Your task to perform on an android device: Play the new Katy Perry video on YouTube Image 0: 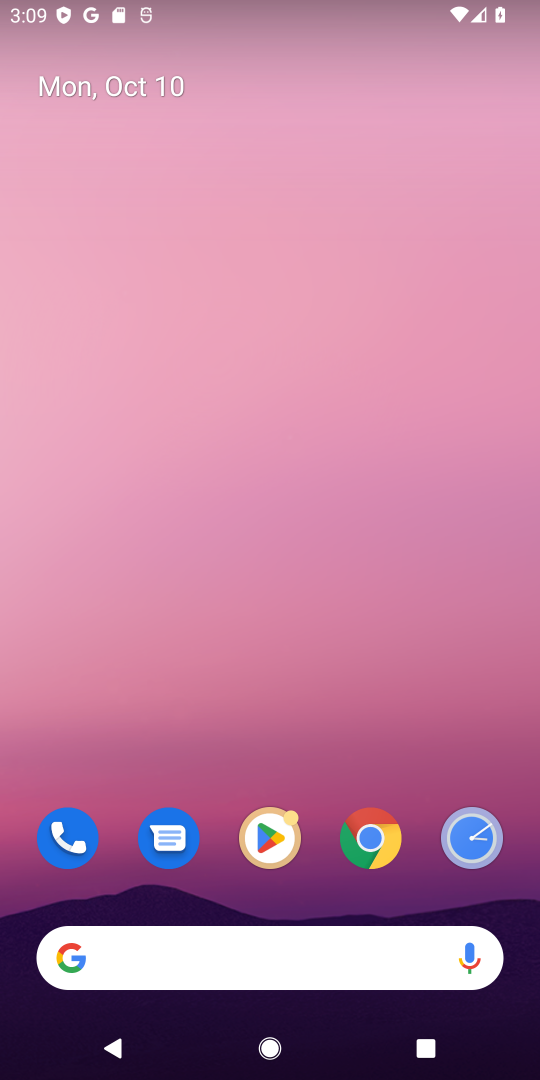
Step 0: drag from (272, 903) to (264, 209)
Your task to perform on an android device: Play the new Katy Perry video on YouTube Image 1: 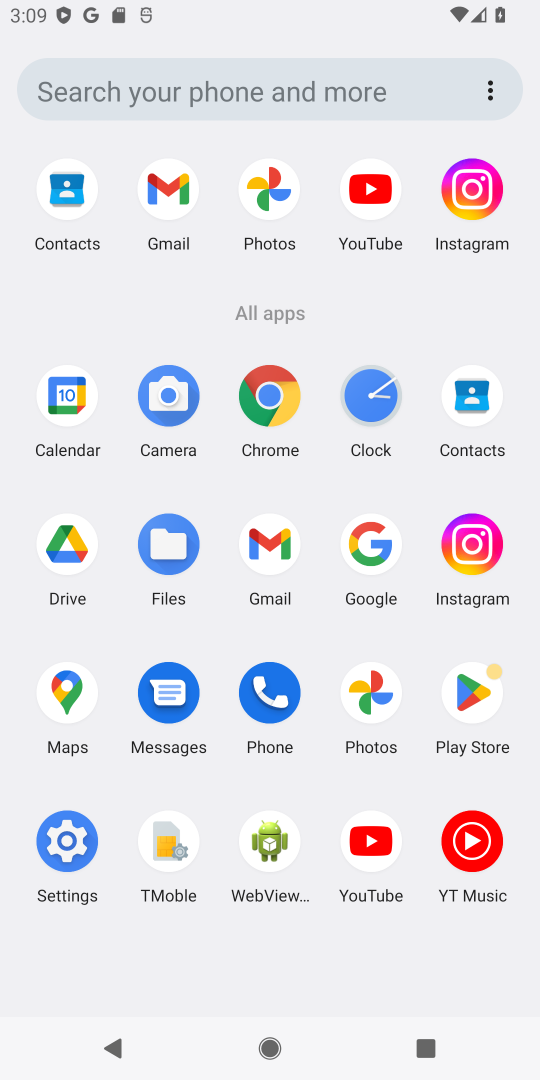
Step 1: click (380, 208)
Your task to perform on an android device: Play the new Katy Perry video on YouTube Image 2: 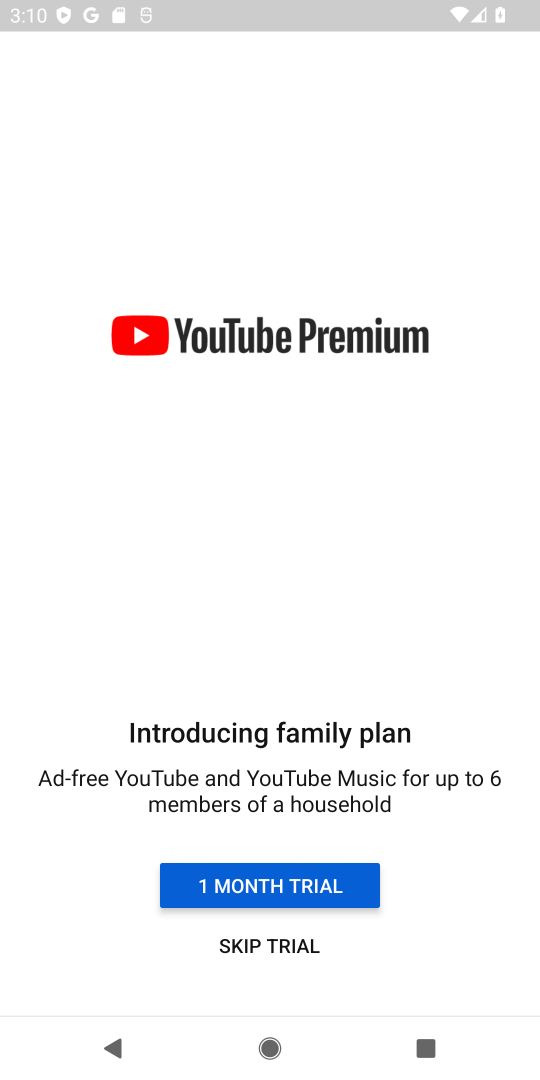
Step 2: click (277, 932)
Your task to perform on an android device: Play the new Katy Perry video on YouTube Image 3: 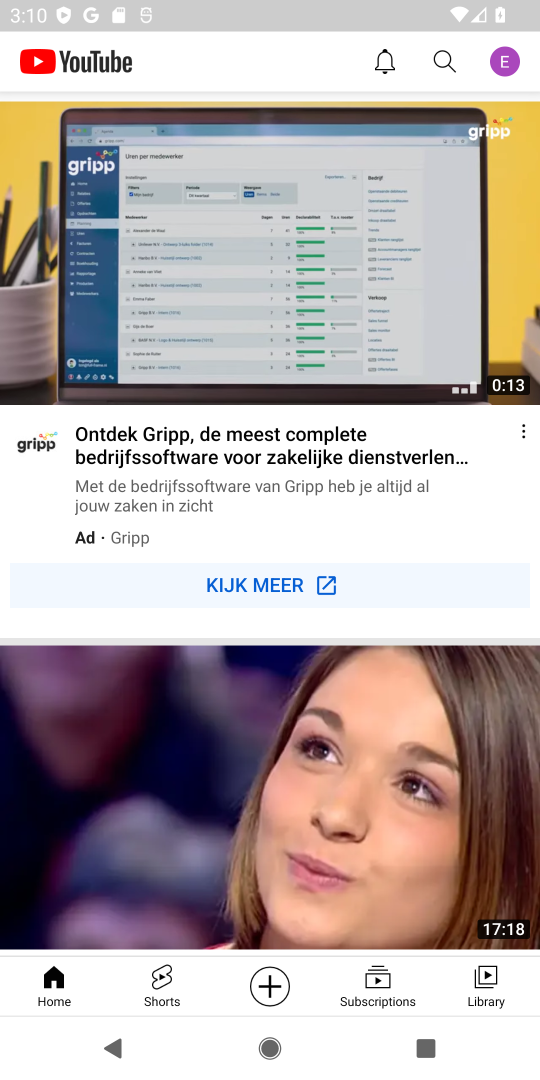
Step 3: click (442, 70)
Your task to perform on an android device: Play the new Katy Perry video on YouTube Image 4: 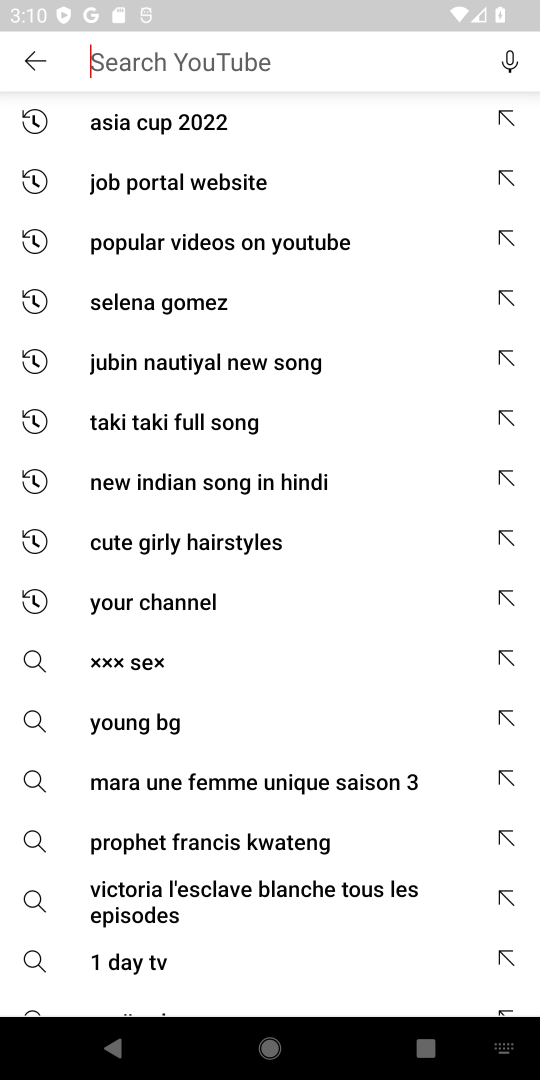
Step 4: type " new Katy Perry"
Your task to perform on an android device: Play the new Katy Perry video on YouTube Image 5: 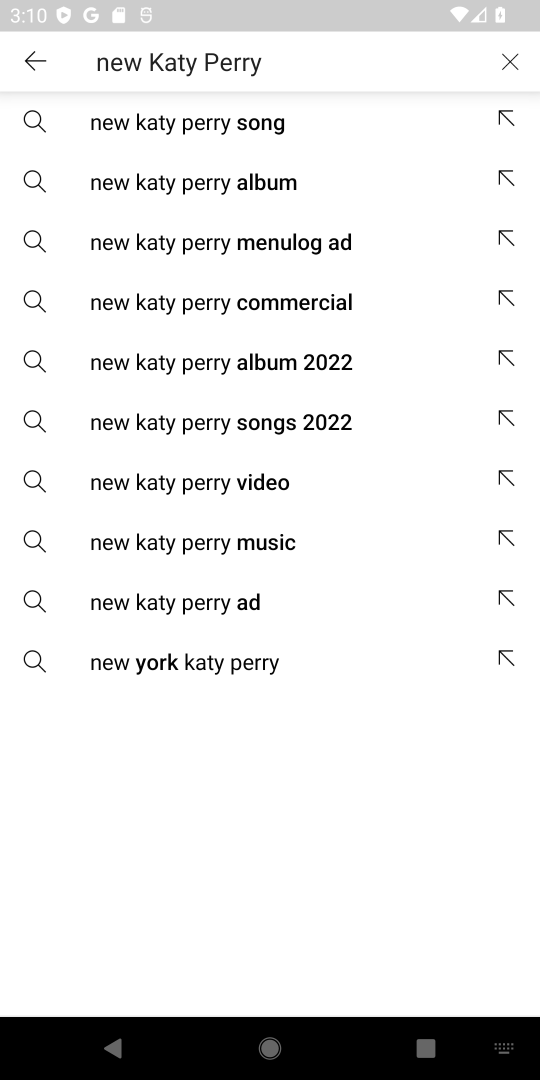
Step 5: click (171, 117)
Your task to perform on an android device: Play the new Katy Perry video on YouTube Image 6: 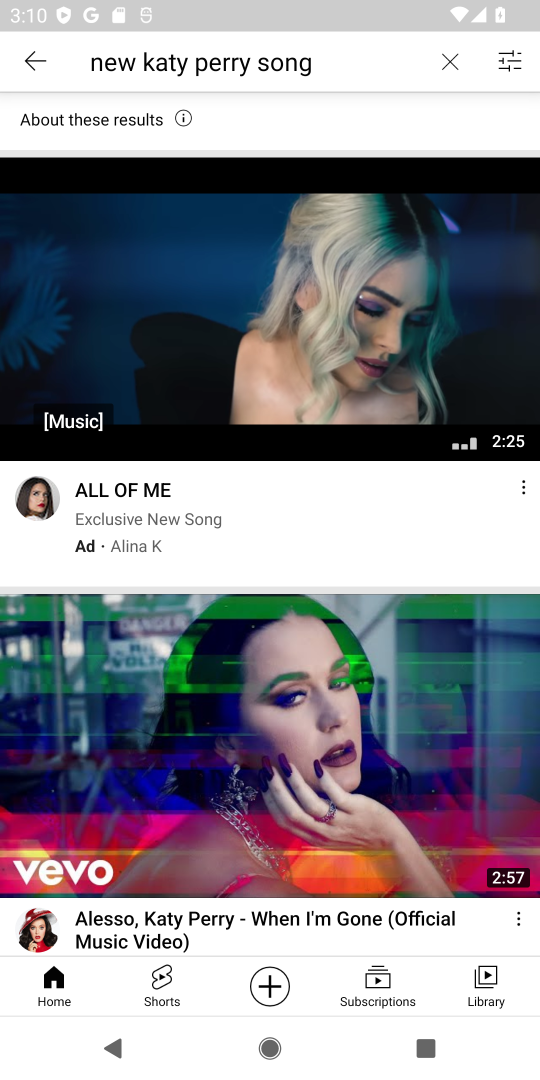
Step 6: drag from (271, 785) to (317, 363)
Your task to perform on an android device: Play the new Katy Perry video on YouTube Image 7: 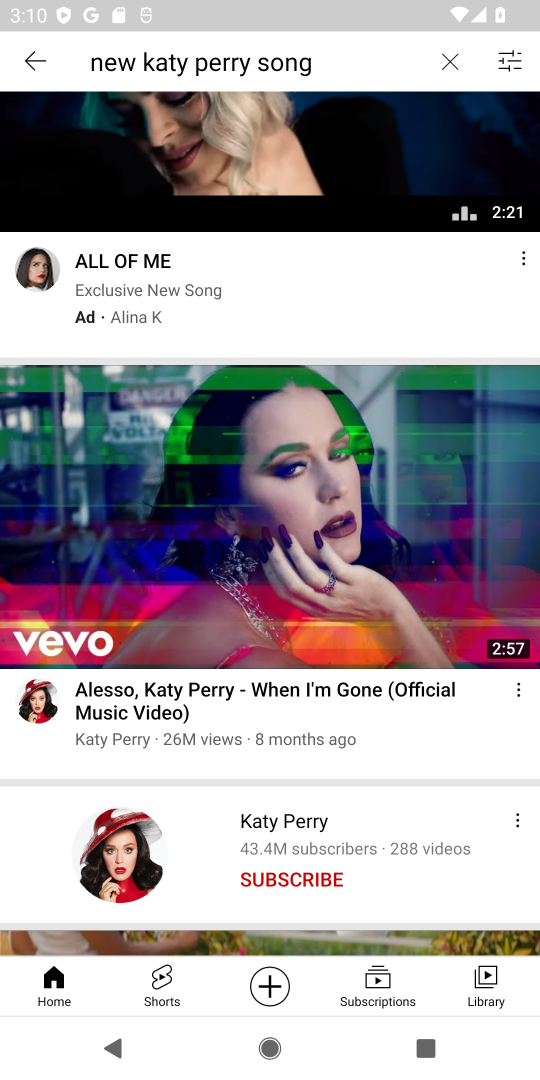
Step 7: click (278, 511)
Your task to perform on an android device: Play the new Katy Perry video on YouTube Image 8: 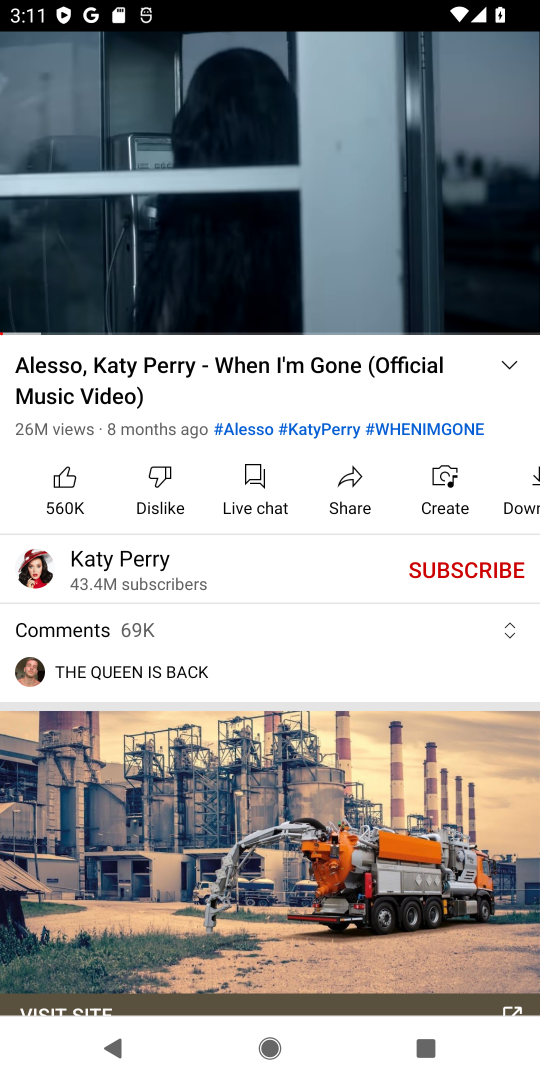
Step 8: click (257, 218)
Your task to perform on an android device: Play the new Katy Perry video on YouTube Image 9: 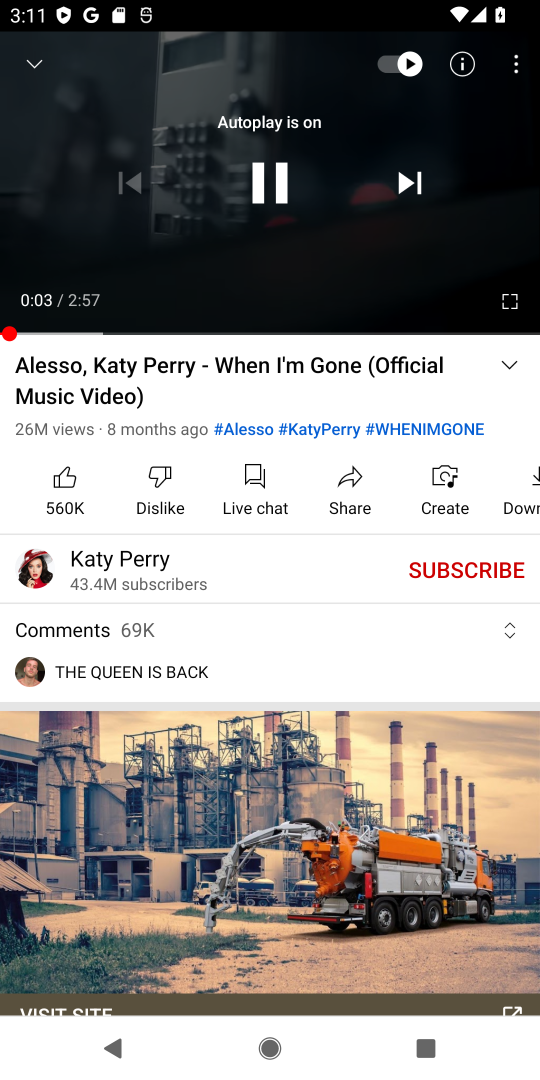
Step 9: click (272, 195)
Your task to perform on an android device: Play the new Katy Perry video on YouTube Image 10: 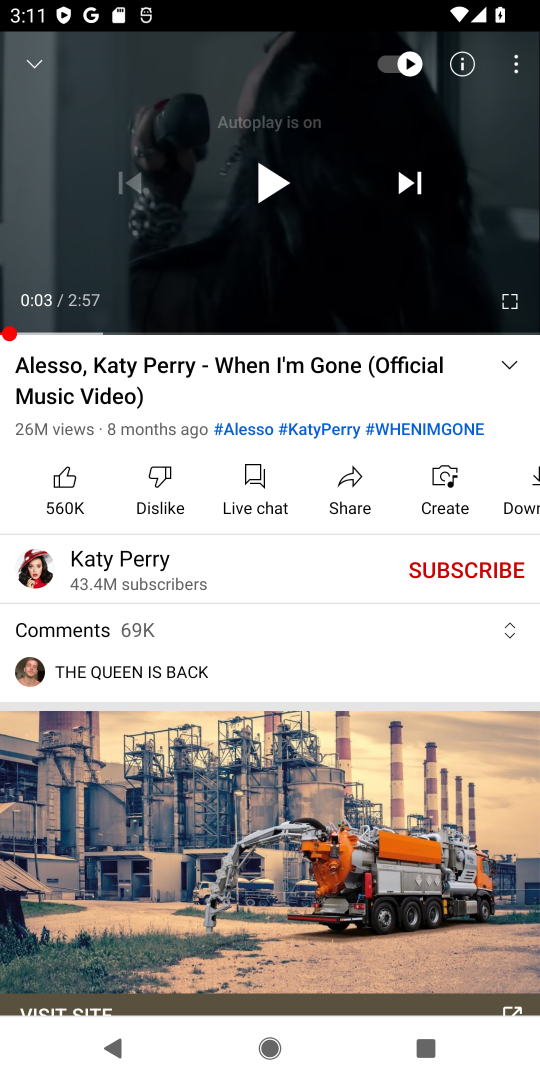
Step 10: task complete